Your task to perform on an android device: Open sound settings Image 0: 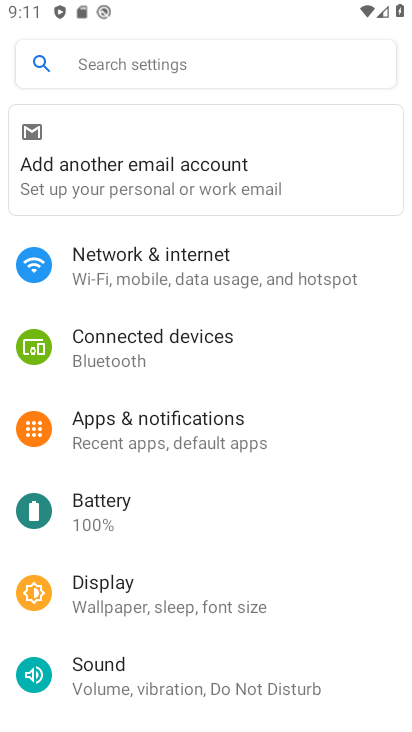
Step 0: drag from (214, 595) to (217, 225)
Your task to perform on an android device: Open sound settings Image 1: 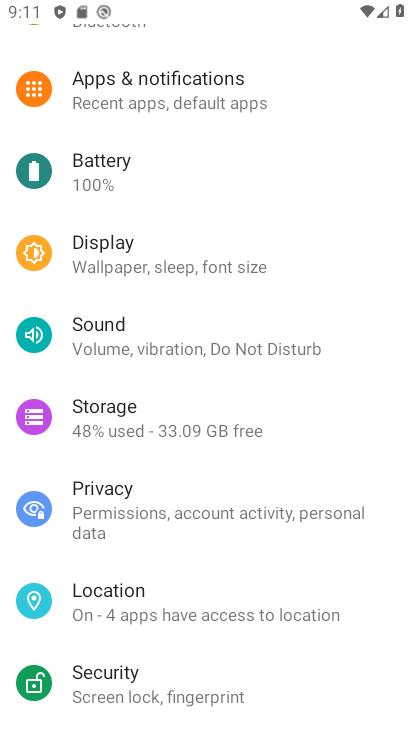
Step 1: click (144, 359)
Your task to perform on an android device: Open sound settings Image 2: 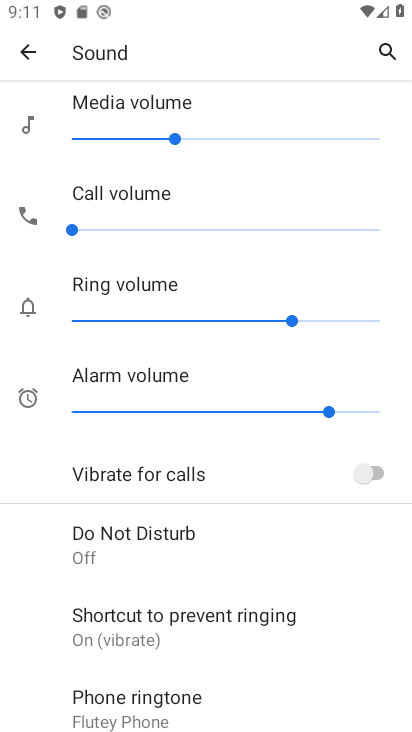
Step 2: task complete